Your task to perform on an android device: Go to Google Image 0: 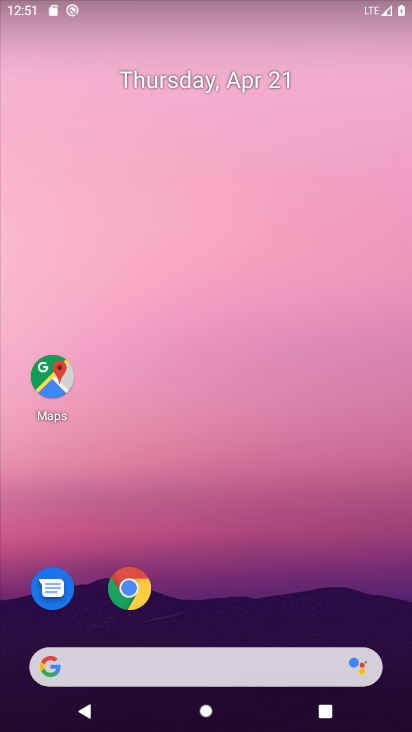
Step 0: drag from (207, 620) to (268, 25)
Your task to perform on an android device: Go to Google Image 1: 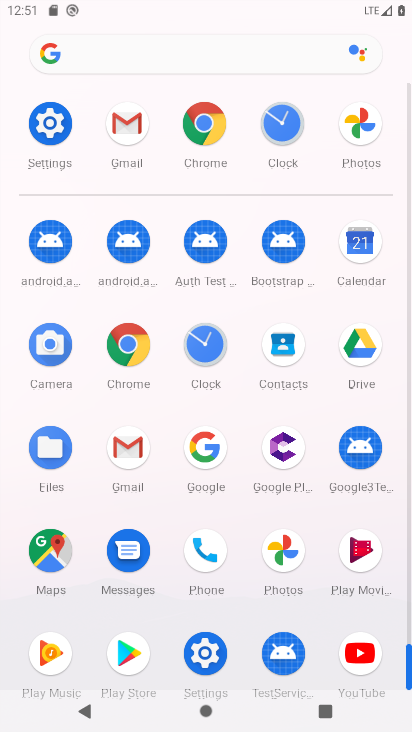
Step 1: click (122, 116)
Your task to perform on an android device: Go to Google Image 2: 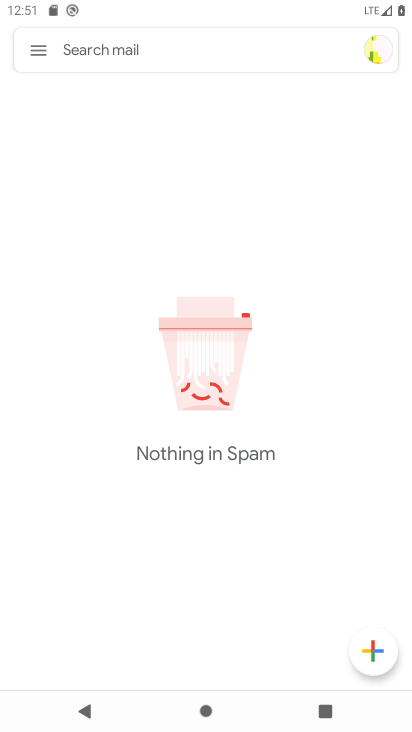
Step 2: click (38, 45)
Your task to perform on an android device: Go to Google Image 3: 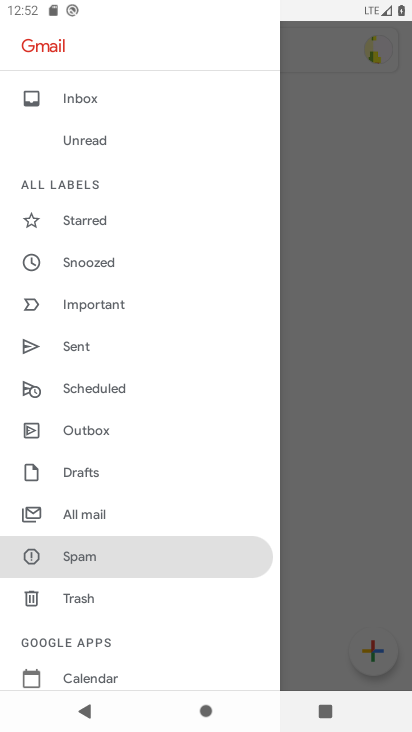
Step 3: press home button
Your task to perform on an android device: Go to Google Image 4: 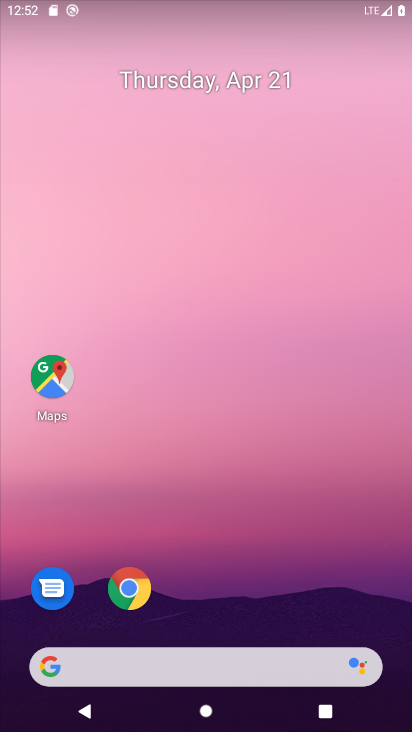
Step 4: drag from (225, 520) to (223, 0)
Your task to perform on an android device: Go to Google Image 5: 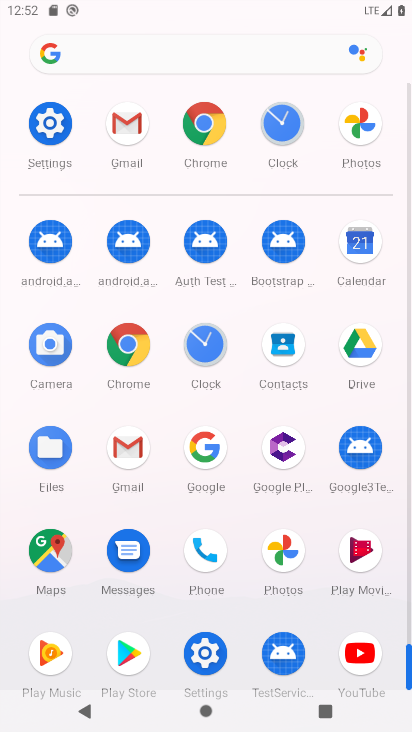
Step 5: click (202, 440)
Your task to perform on an android device: Go to Google Image 6: 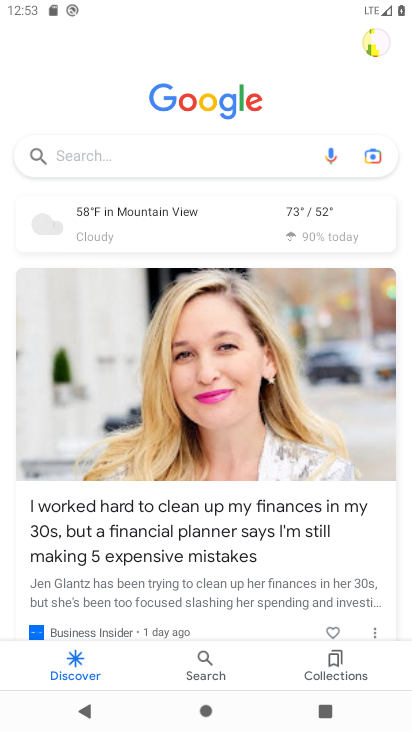
Step 6: task complete